Your task to perform on an android device: open a bookmark in the chrome app Image 0: 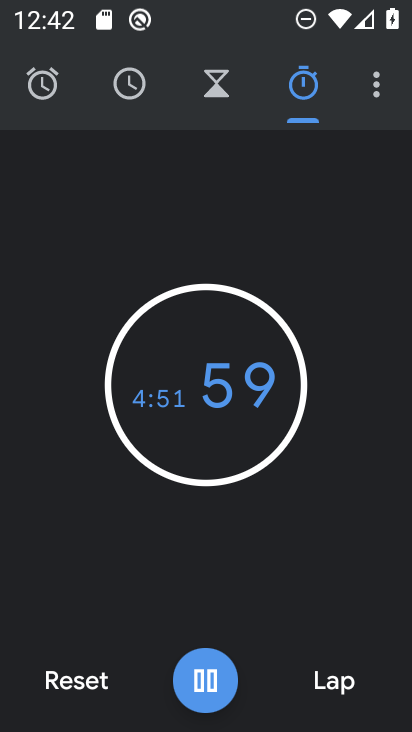
Step 0: press home button
Your task to perform on an android device: open a bookmark in the chrome app Image 1: 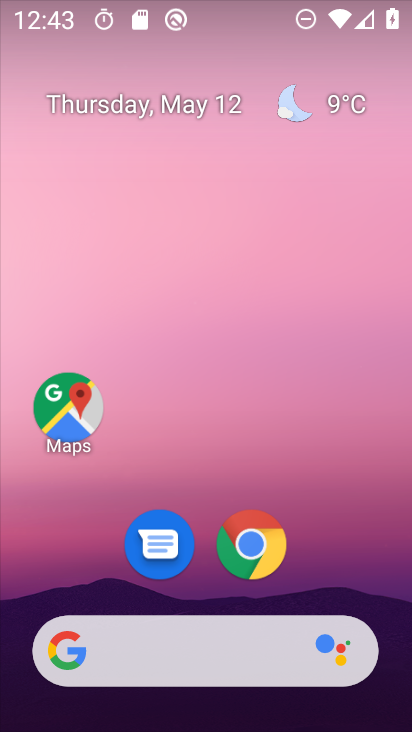
Step 1: click (248, 536)
Your task to perform on an android device: open a bookmark in the chrome app Image 2: 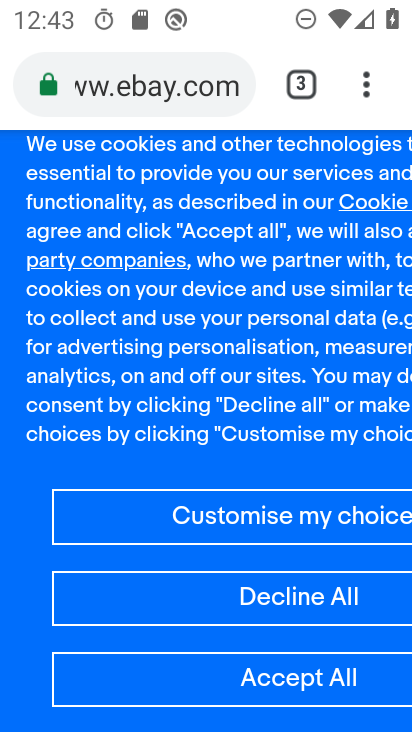
Step 2: click (365, 92)
Your task to perform on an android device: open a bookmark in the chrome app Image 3: 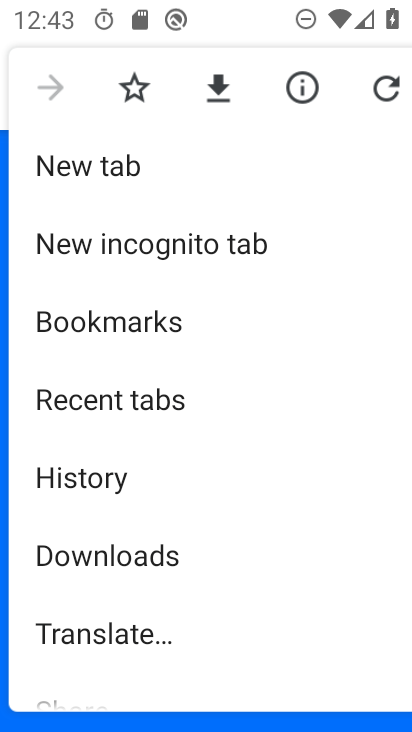
Step 3: click (94, 327)
Your task to perform on an android device: open a bookmark in the chrome app Image 4: 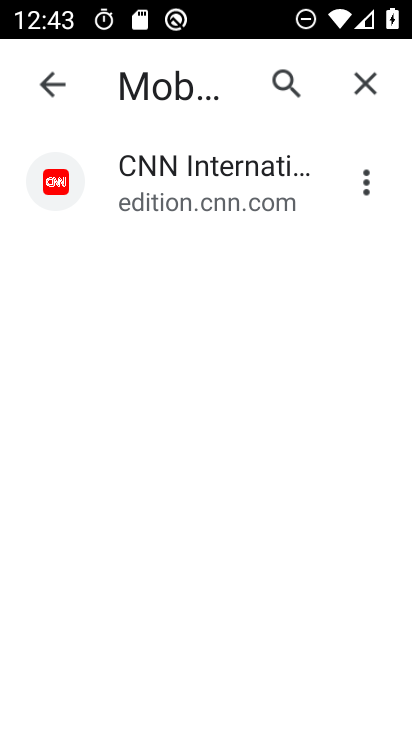
Step 4: click (163, 189)
Your task to perform on an android device: open a bookmark in the chrome app Image 5: 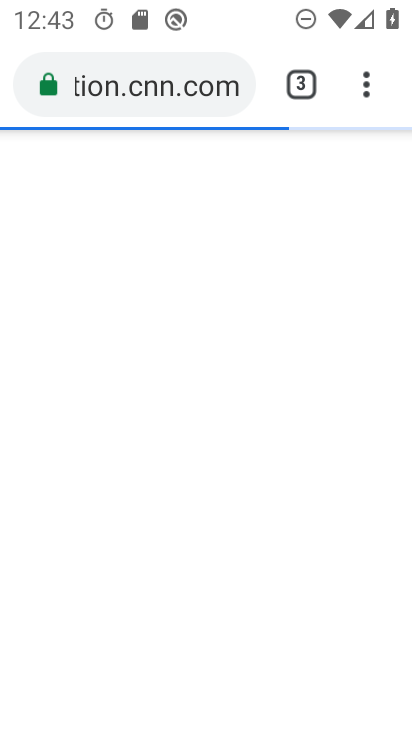
Step 5: task complete